Your task to perform on an android device: change alarm snooze length Image 0: 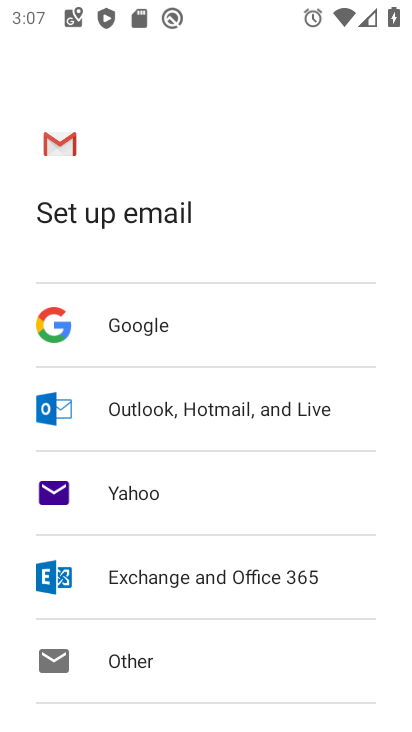
Step 0: press home button
Your task to perform on an android device: change alarm snooze length Image 1: 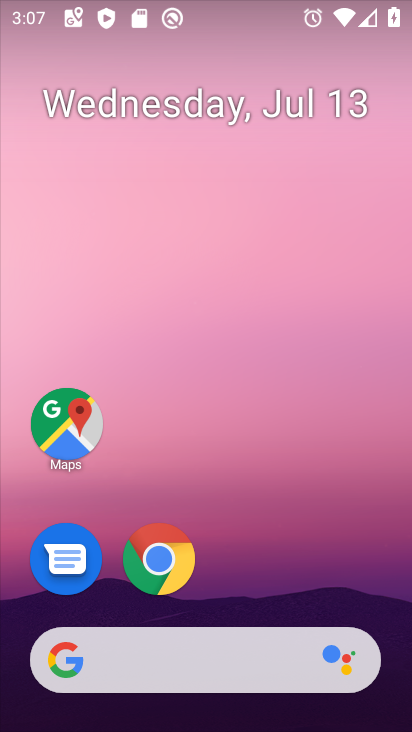
Step 1: drag from (369, 584) to (365, 217)
Your task to perform on an android device: change alarm snooze length Image 2: 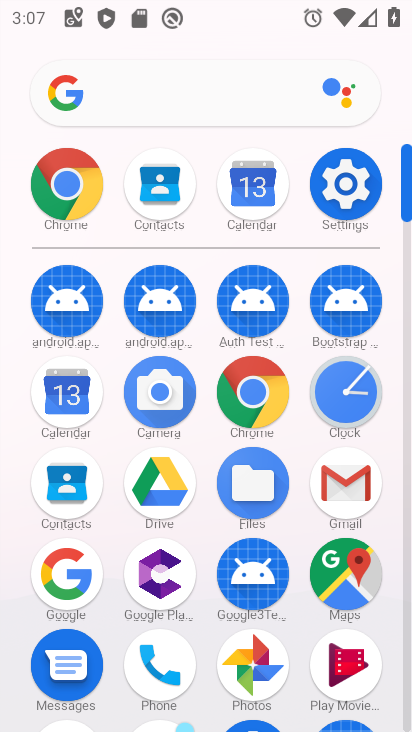
Step 2: click (349, 393)
Your task to perform on an android device: change alarm snooze length Image 3: 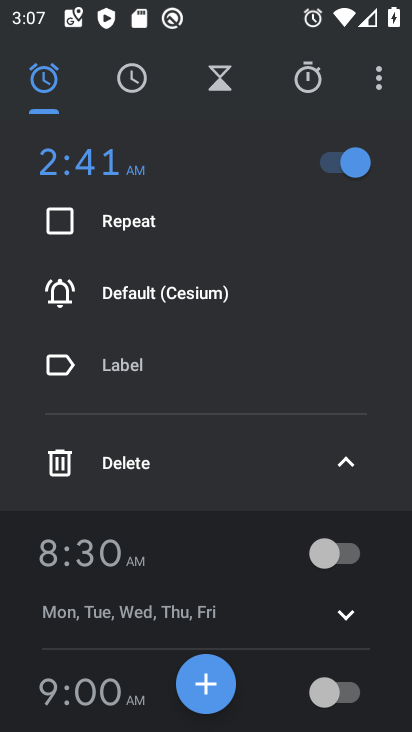
Step 3: click (381, 90)
Your task to perform on an android device: change alarm snooze length Image 4: 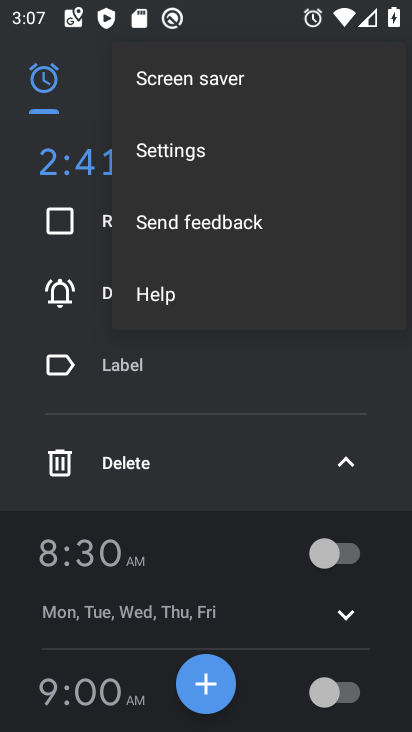
Step 4: click (234, 159)
Your task to perform on an android device: change alarm snooze length Image 5: 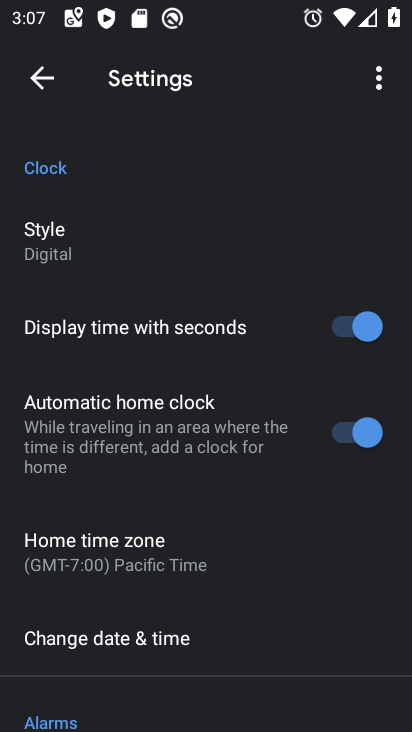
Step 5: drag from (265, 341) to (282, 276)
Your task to perform on an android device: change alarm snooze length Image 6: 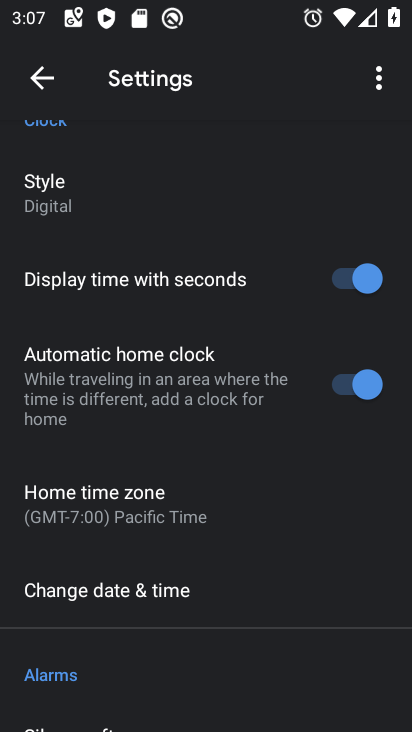
Step 6: drag from (274, 390) to (281, 311)
Your task to perform on an android device: change alarm snooze length Image 7: 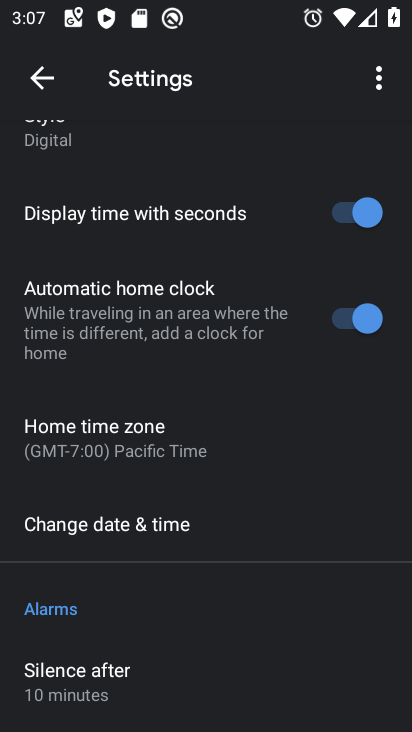
Step 7: drag from (279, 389) to (286, 318)
Your task to perform on an android device: change alarm snooze length Image 8: 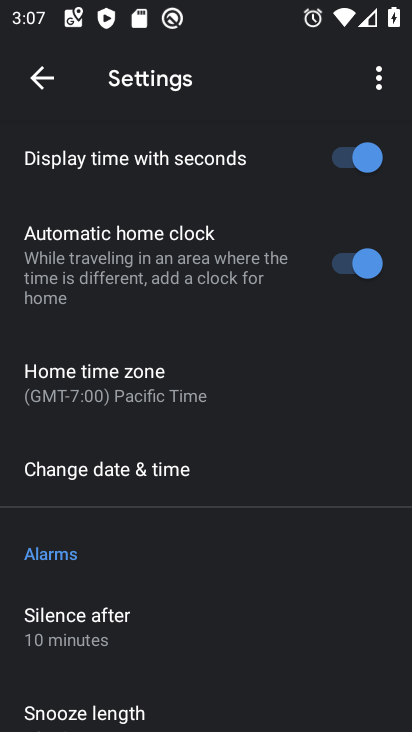
Step 8: drag from (271, 392) to (280, 344)
Your task to perform on an android device: change alarm snooze length Image 9: 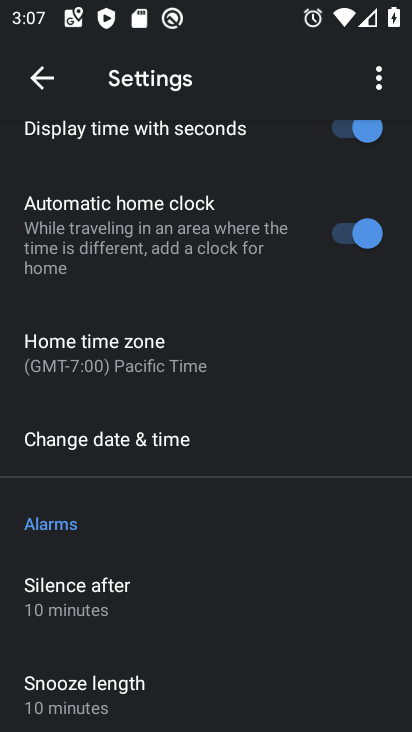
Step 9: drag from (265, 388) to (275, 274)
Your task to perform on an android device: change alarm snooze length Image 10: 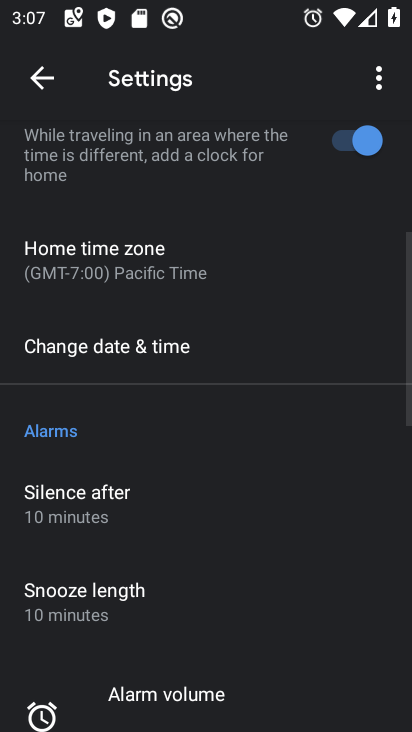
Step 10: drag from (256, 346) to (271, 258)
Your task to perform on an android device: change alarm snooze length Image 11: 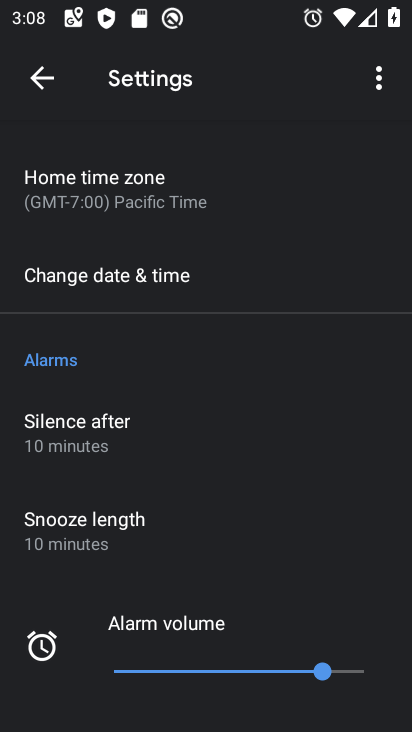
Step 11: drag from (260, 356) to (269, 277)
Your task to perform on an android device: change alarm snooze length Image 12: 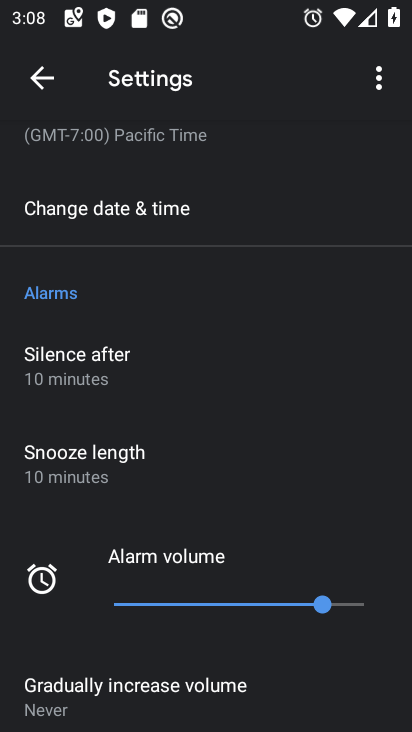
Step 12: drag from (246, 370) to (263, 266)
Your task to perform on an android device: change alarm snooze length Image 13: 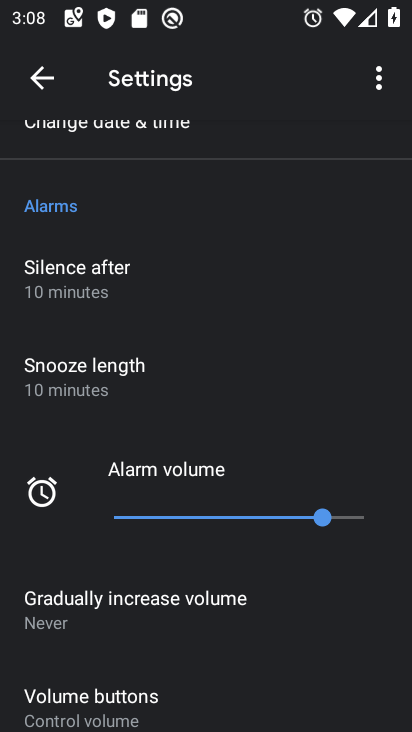
Step 13: drag from (282, 390) to (290, 247)
Your task to perform on an android device: change alarm snooze length Image 14: 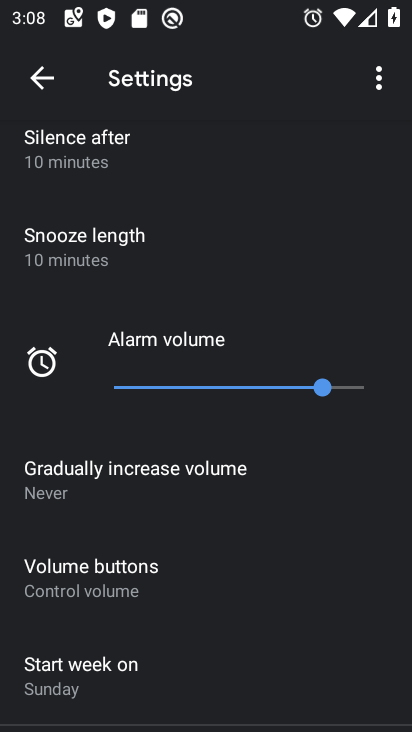
Step 14: click (129, 251)
Your task to perform on an android device: change alarm snooze length Image 15: 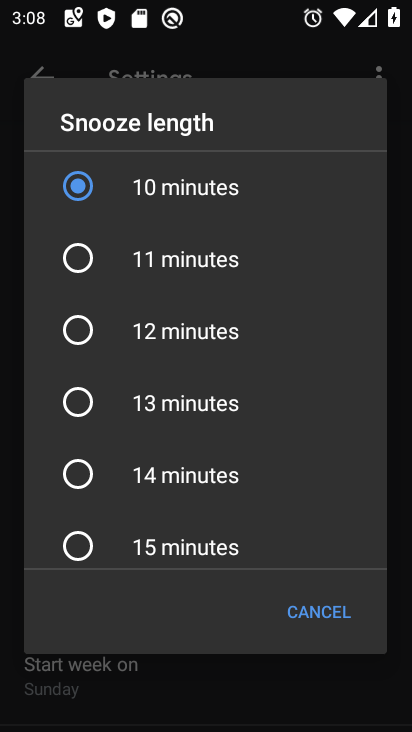
Step 15: click (189, 406)
Your task to perform on an android device: change alarm snooze length Image 16: 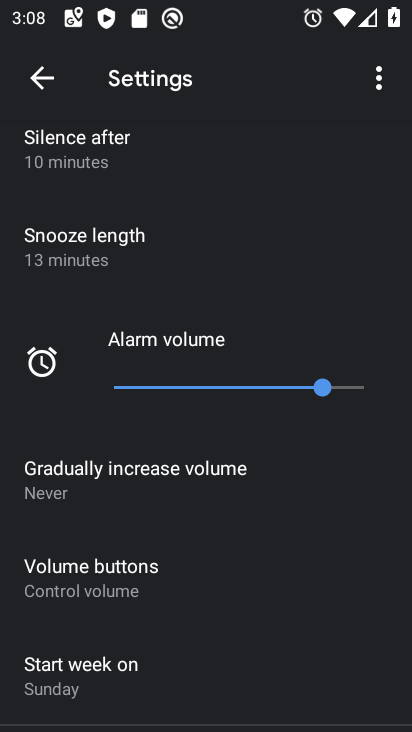
Step 16: task complete